Your task to perform on an android device: open chrome privacy settings Image 0: 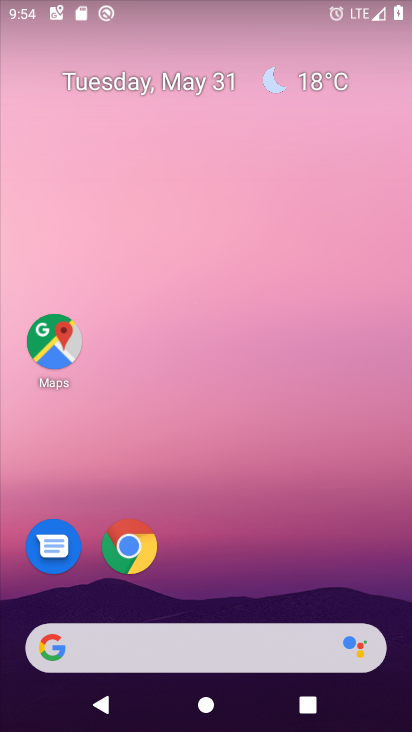
Step 0: click (133, 545)
Your task to perform on an android device: open chrome privacy settings Image 1: 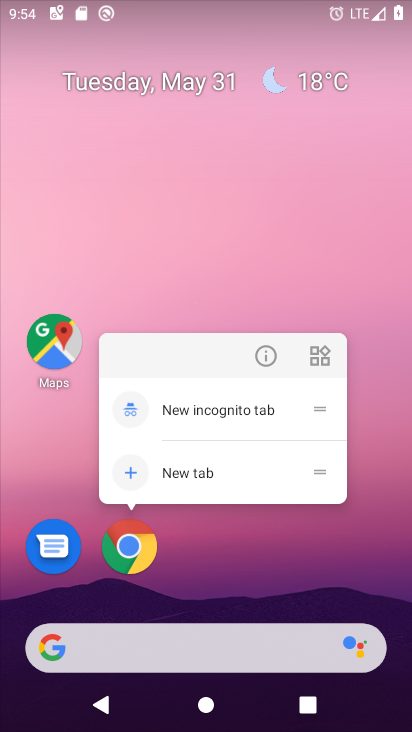
Step 1: click (130, 547)
Your task to perform on an android device: open chrome privacy settings Image 2: 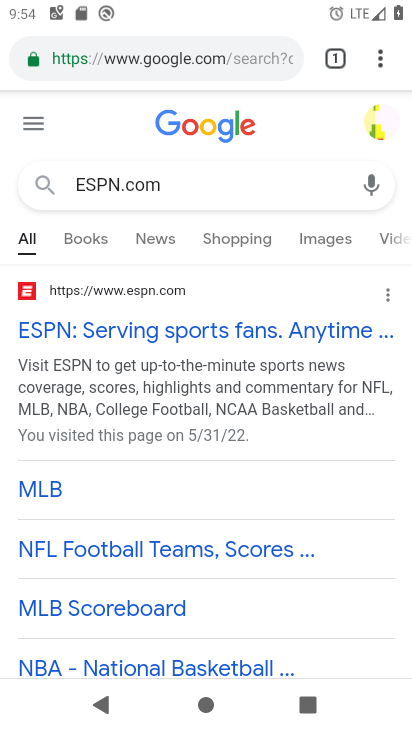
Step 2: click (385, 69)
Your task to perform on an android device: open chrome privacy settings Image 3: 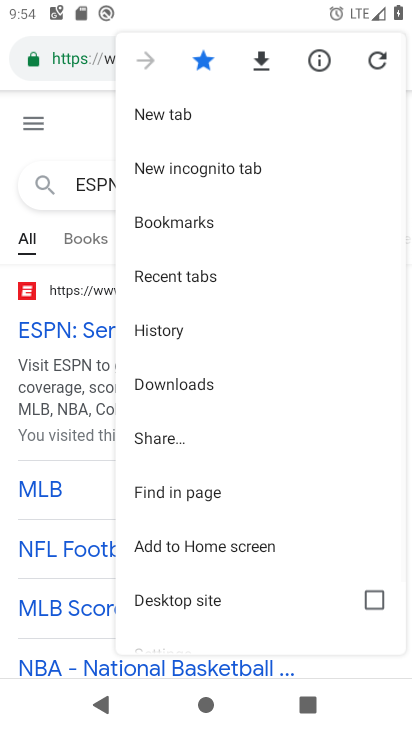
Step 3: drag from (195, 602) to (212, 265)
Your task to perform on an android device: open chrome privacy settings Image 4: 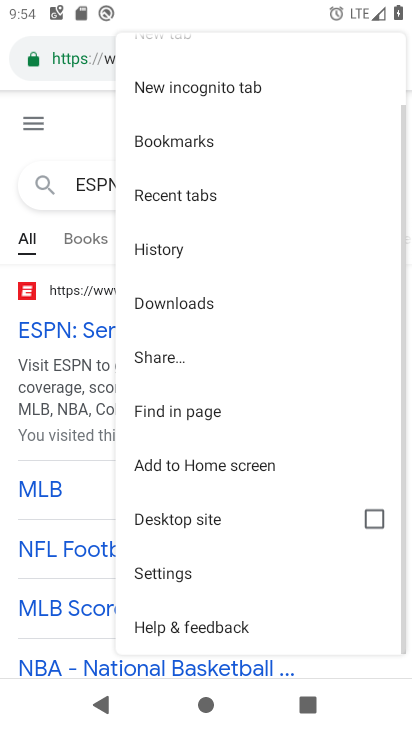
Step 4: click (184, 580)
Your task to perform on an android device: open chrome privacy settings Image 5: 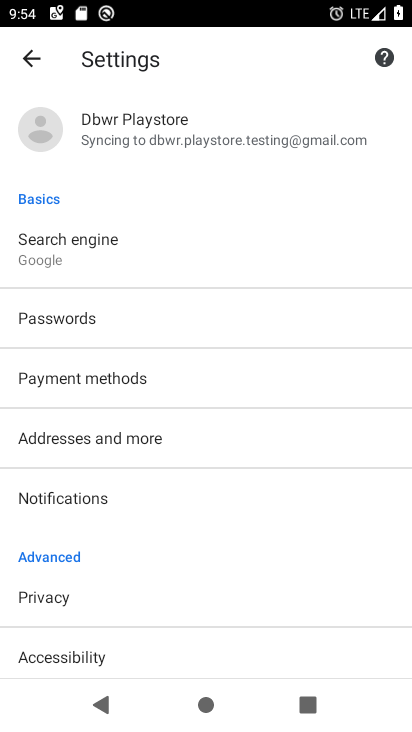
Step 5: click (106, 594)
Your task to perform on an android device: open chrome privacy settings Image 6: 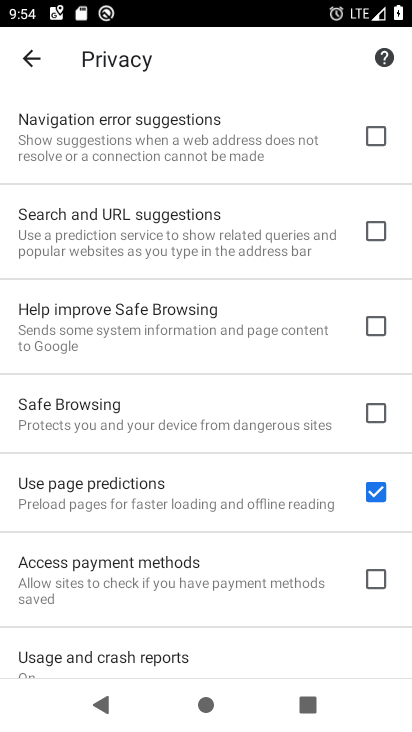
Step 6: task complete